Your task to perform on an android device: toggle priority inbox in the gmail app Image 0: 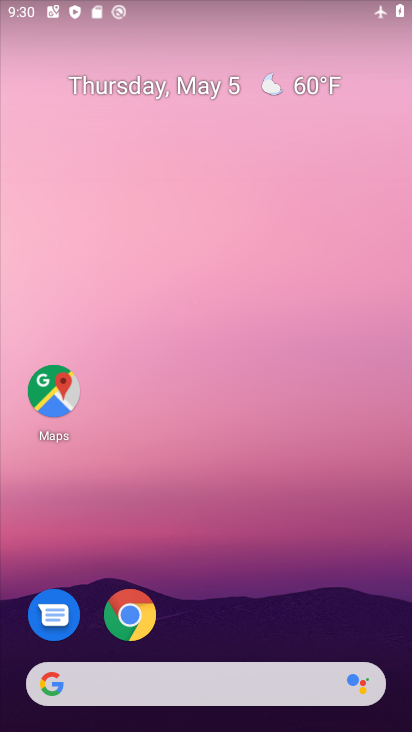
Step 0: drag from (324, 507) to (402, 223)
Your task to perform on an android device: toggle priority inbox in the gmail app Image 1: 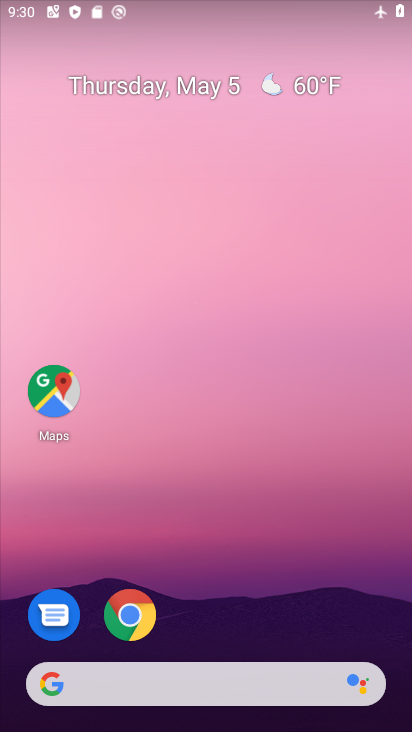
Step 1: drag from (228, 634) to (388, 88)
Your task to perform on an android device: toggle priority inbox in the gmail app Image 2: 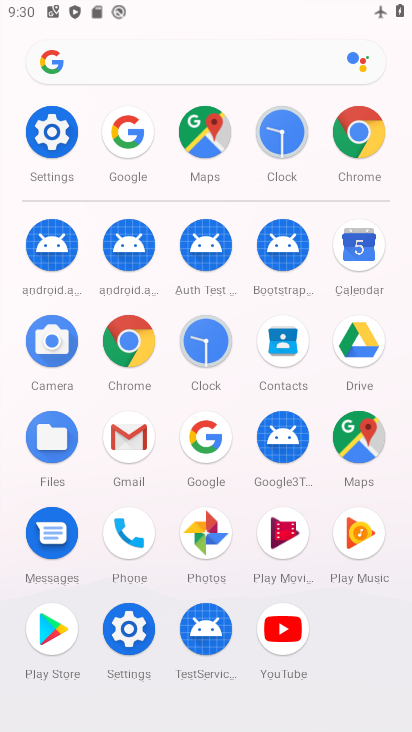
Step 2: click (123, 436)
Your task to perform on an android device: toggle priority inbox in the gmail app Image 3: 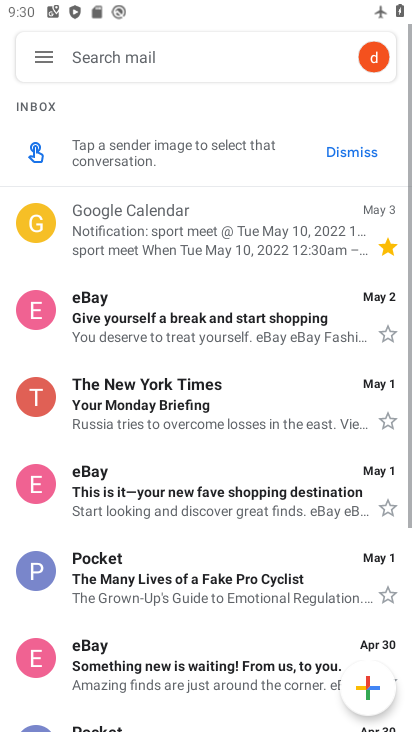
Step 3: click (41, 57)
Your task to perform on an android device: toggle priority inbox in the gmail app Image 4: 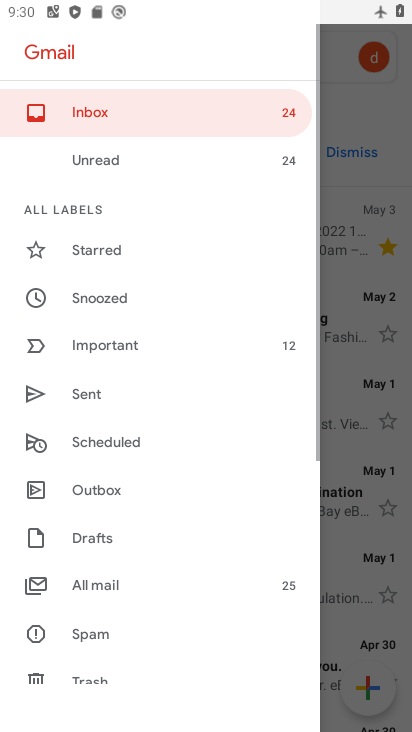
Step 4: drag from (130, 636) to (264, 180)
Your task to perform on an android device: toggle priority inbox in the gmail app Image 5: 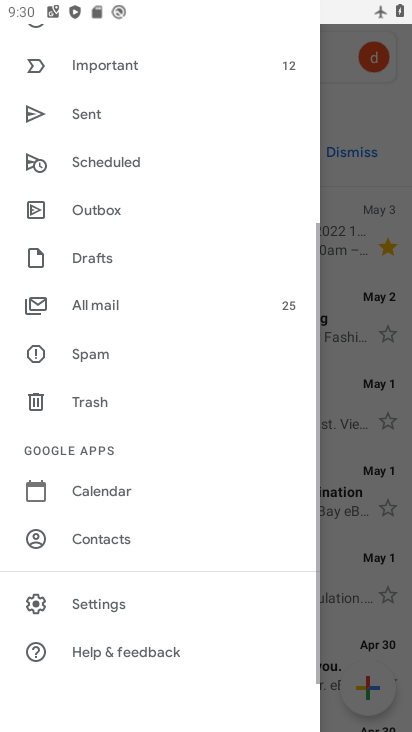
Step 5: click (108, 608)
Your task to perform on an android device: toggle priority inbox in the gmail app Image 6: 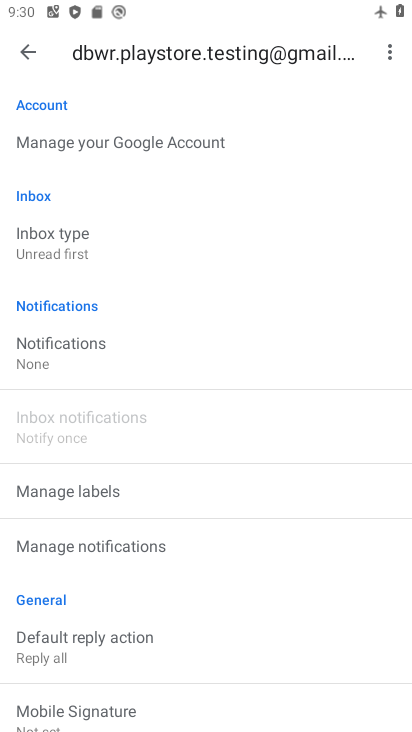
Step 6: click (66, 255)
Your task to perform on an android device: toggle priority inbox in the gmail app Image 7: 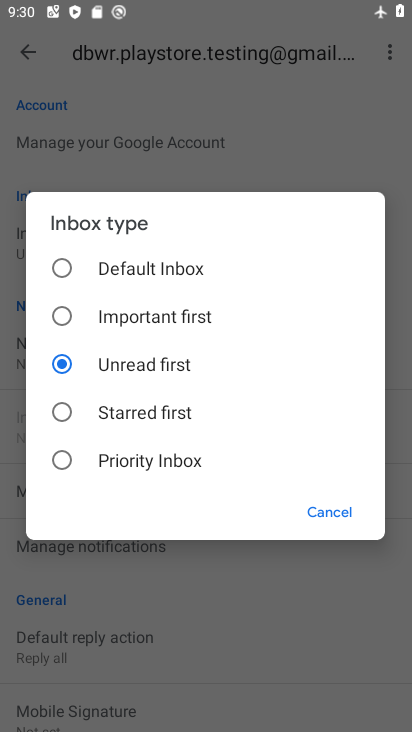
Step 7: task complete